Your task to perform on an android device: toggle airplane mode Image 0: 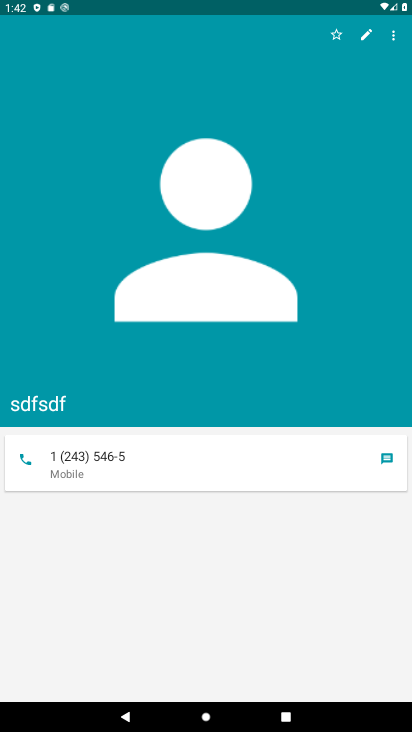
Step 0: press home button
Your task to perform on an android device: toggle airplane mode Image 1: 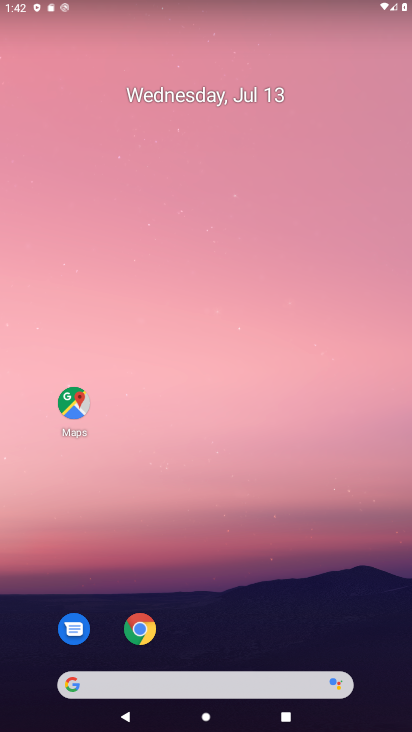
Step 1: drag from (209, 683) to (174, 2)
Your task to perform on an android device: toggle airplane mode Image 2: 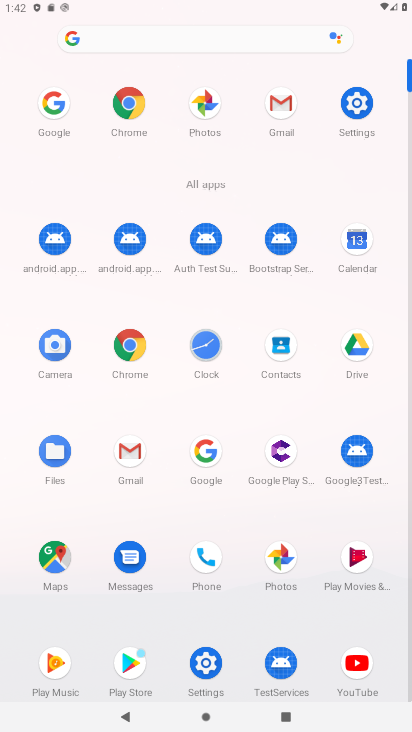
Step 2: click (342, 101)
Your task to perform on an android device: toggle airplane mode Image 3: 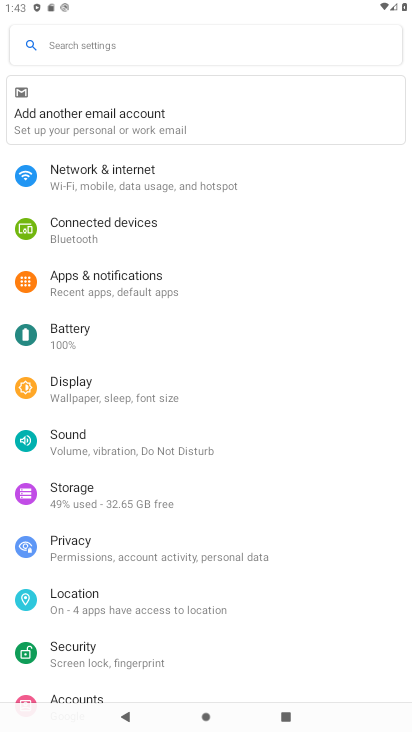
Step 3: click (120, 184)
Your task to perform on an android device: toggle airplane mode Image 4: 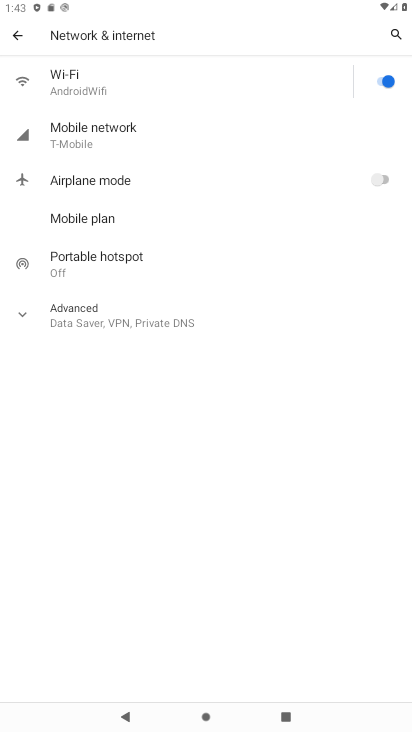
Step 4: click (379, 173)
Your task to perform on an android device: toggle airplane mode Image 5: 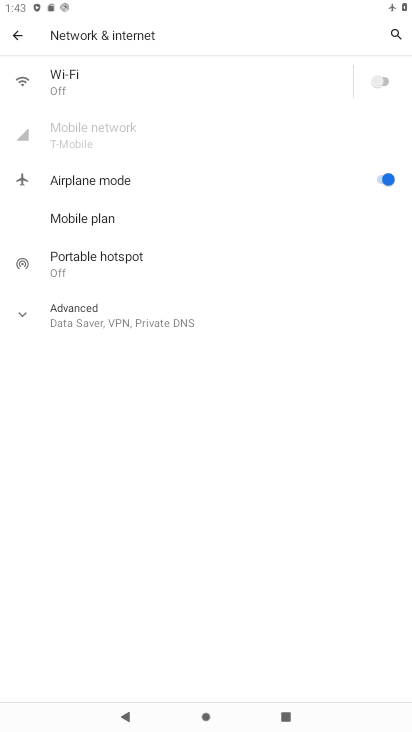
Step 5: task complete